Your task to perform on an android device: Check the news Image 0: 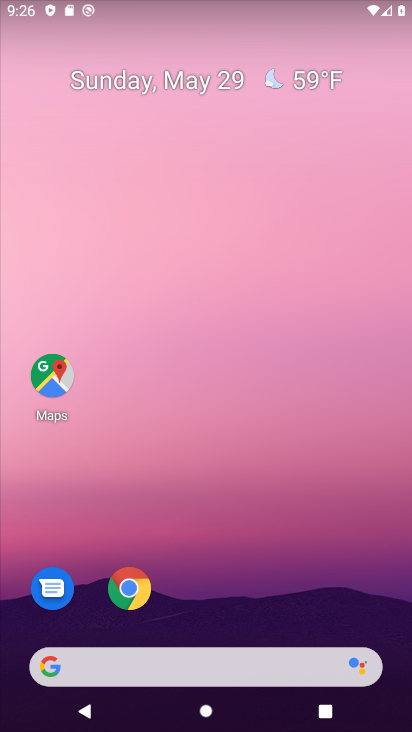
Step 0: drag from (252, 622) to (202, 151)
Your task to perform on an android device: Check the news Image 1: 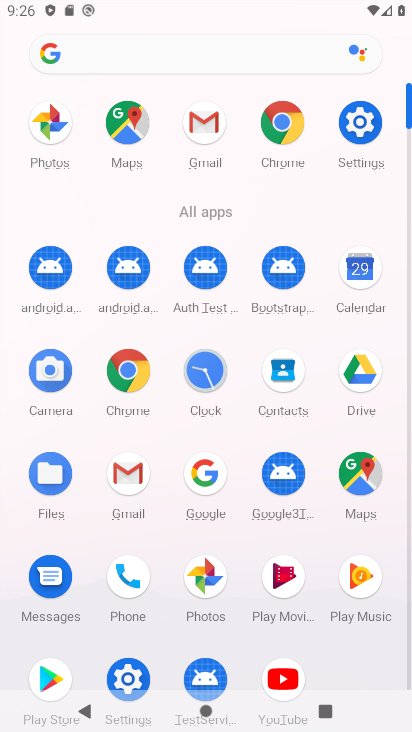
Step 1: click (257, 128)
Your task to perform on an android device: Check the news Image 2: 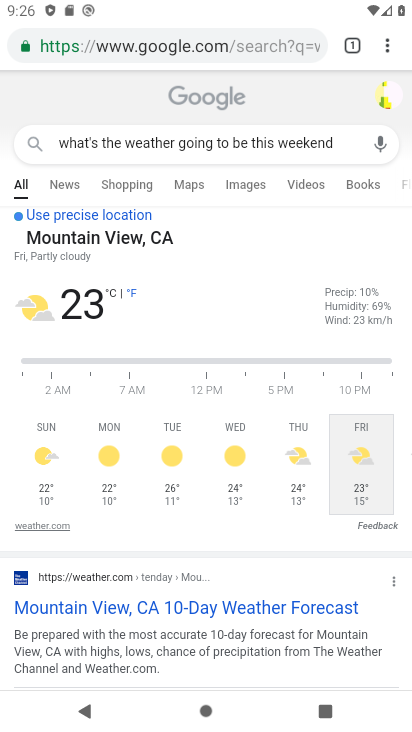
Step 2: click (222, 50)
Your task to perform on an android device: Check the news Image 3: 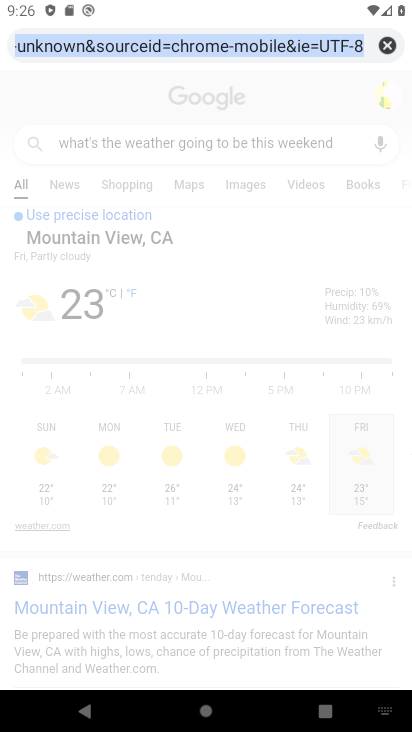
Step 3: type "news"
Your task to perform on an android device: Check the news Image 4: 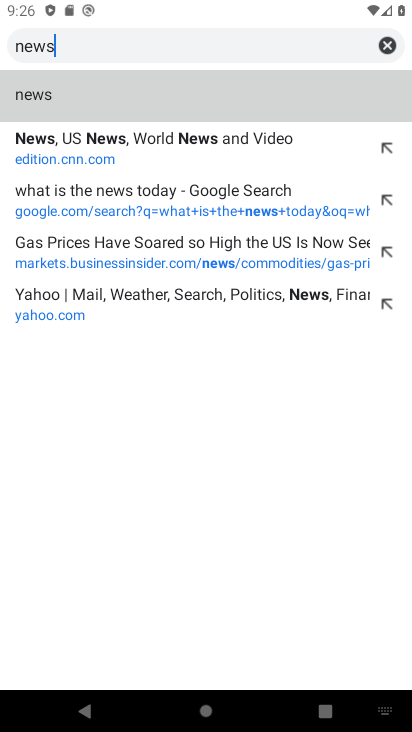
Step 4: click (44, 100)
Your task to perform on an android device: Check the news Image 5: 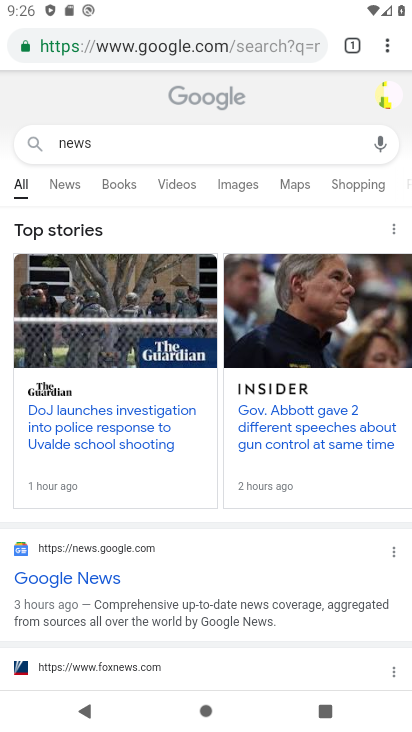
Step 5: task complete